Your task to perform on an android device: Empty the shopping cart on bestbuy. Search for "acer predator" on bestbuy, select the first entry, add it to the cart, then select checkout. Image 0: 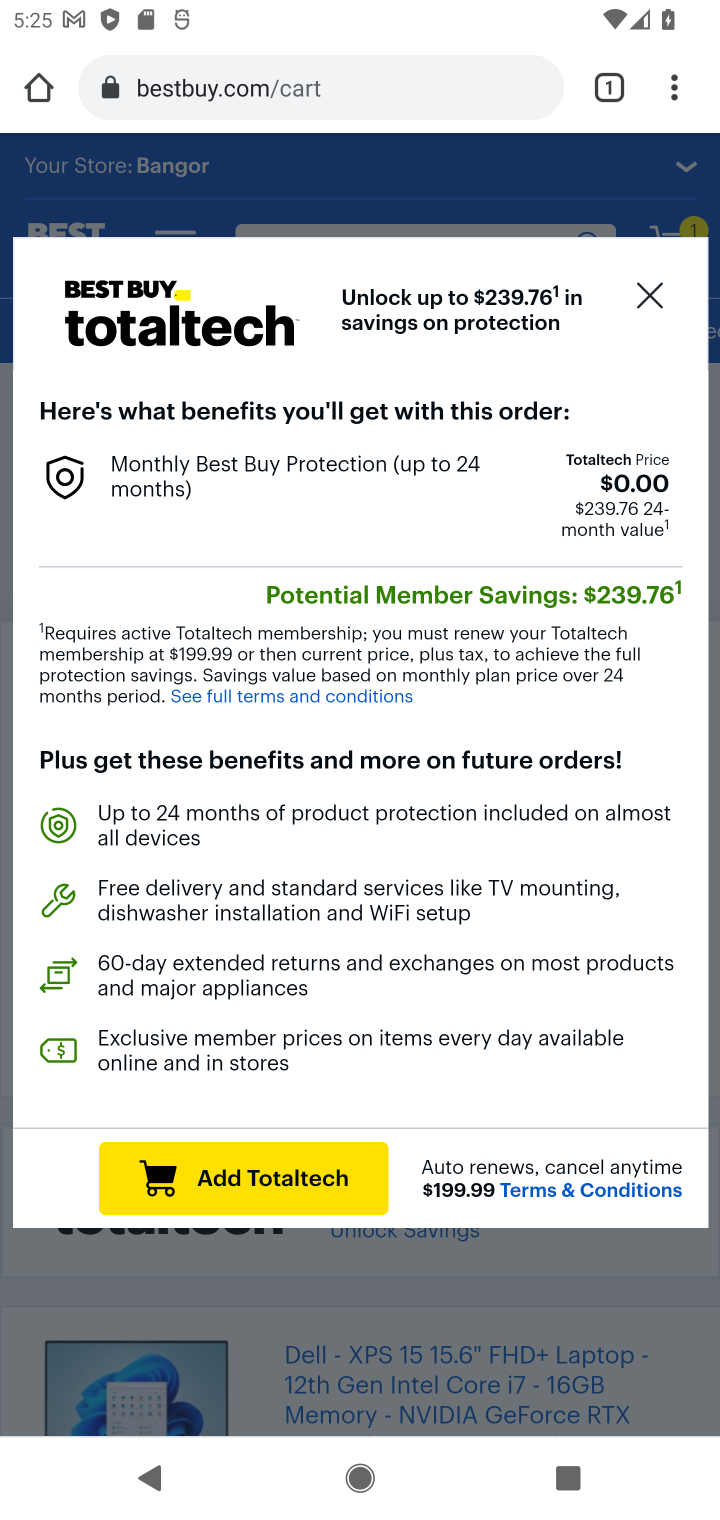
Step 0: drag from (367, 1118) to (560, 555)
Your task to perform on an android device: Empty the shopping cart on bestbuy. Search for "acer predator" on bestbuy, select the first entry, add it to the cart, then select checkout. Image 1: 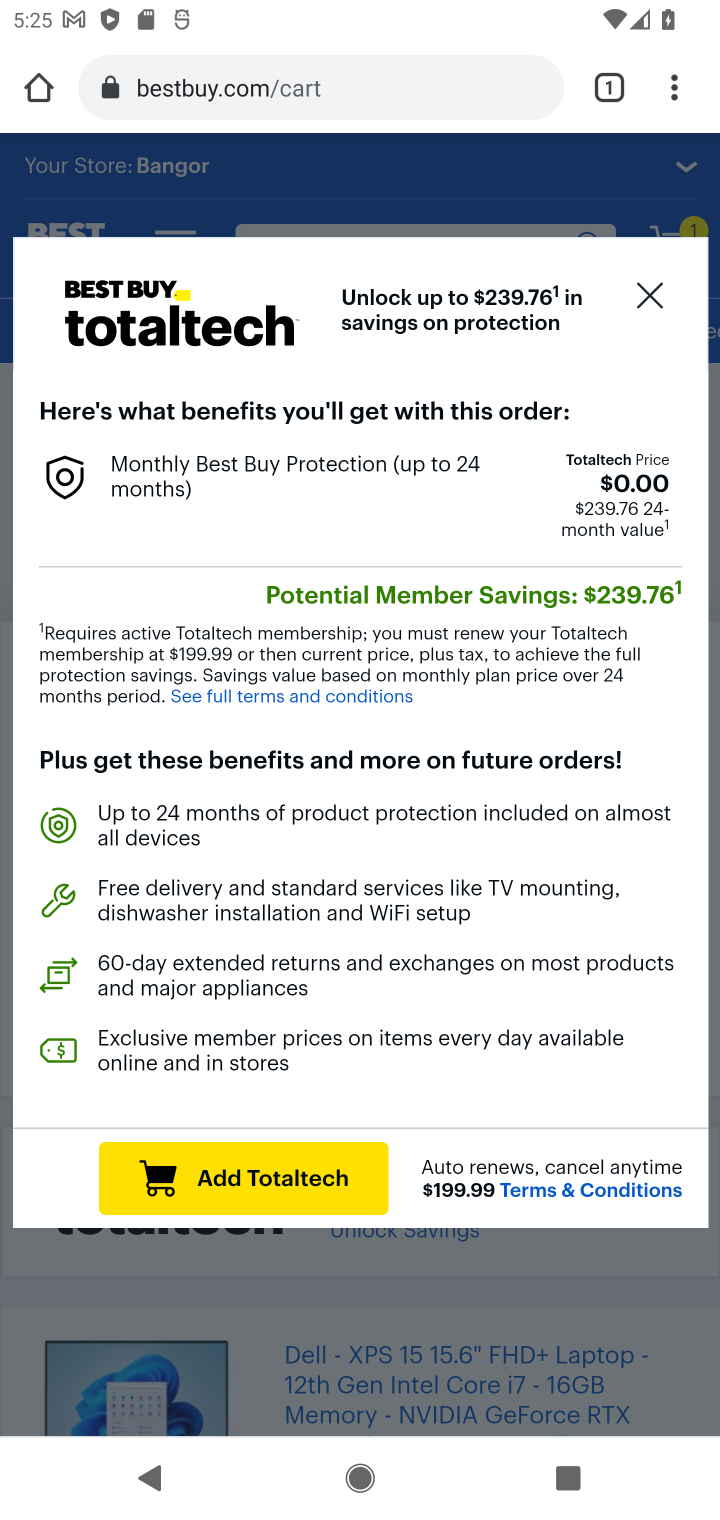
Step 1: press home button
Your task to perform on an android device: Empty the shopping cart on bestbuy. Search for "acer predator" on bestbuy, select the first entry, add it to the cart, then select checkout. Image 2: 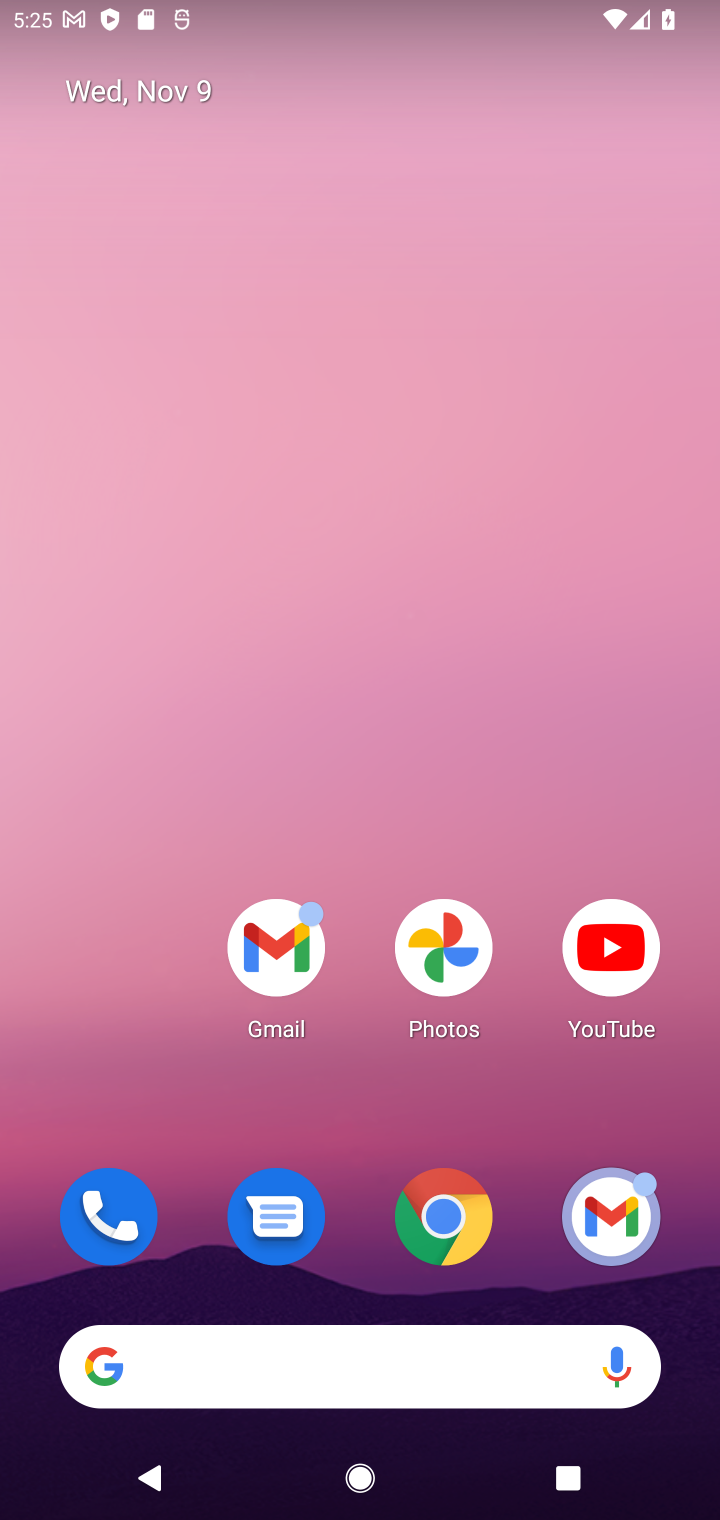
Step 2: drag from (372, 1134) to (344, 74)
Your task to perform on an android device: Empty the shopping cart on bestbuy. Search for "acer predator" on bestbuy, select the first entry, add it to the cart, then select checkout. Image 3: 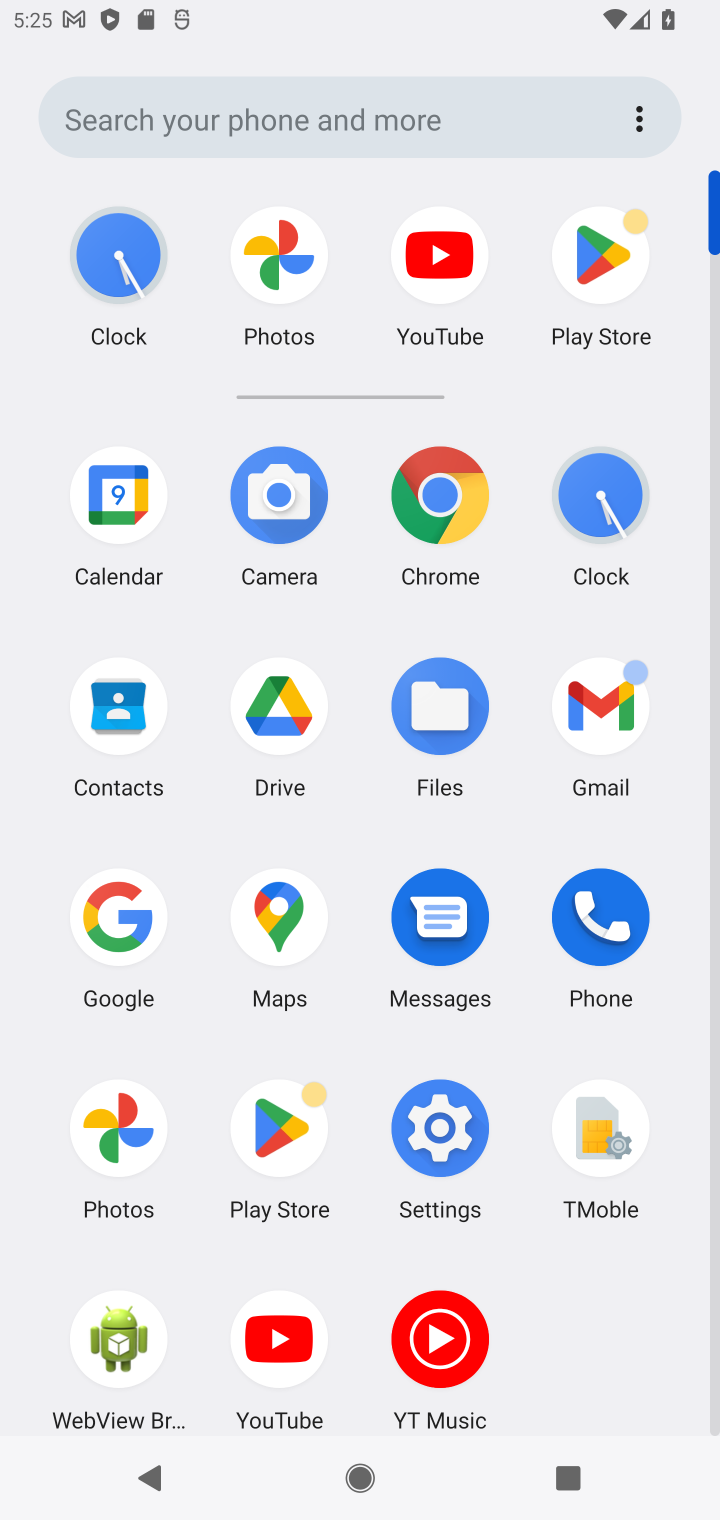
Step 3: click (446, 491)
Your task to perform on an android device: Empty the shopping cart on bestbuy. Search for "acer predator" on bestbuy, select the first entry, add it to the cart, then select checkout. Image 4: 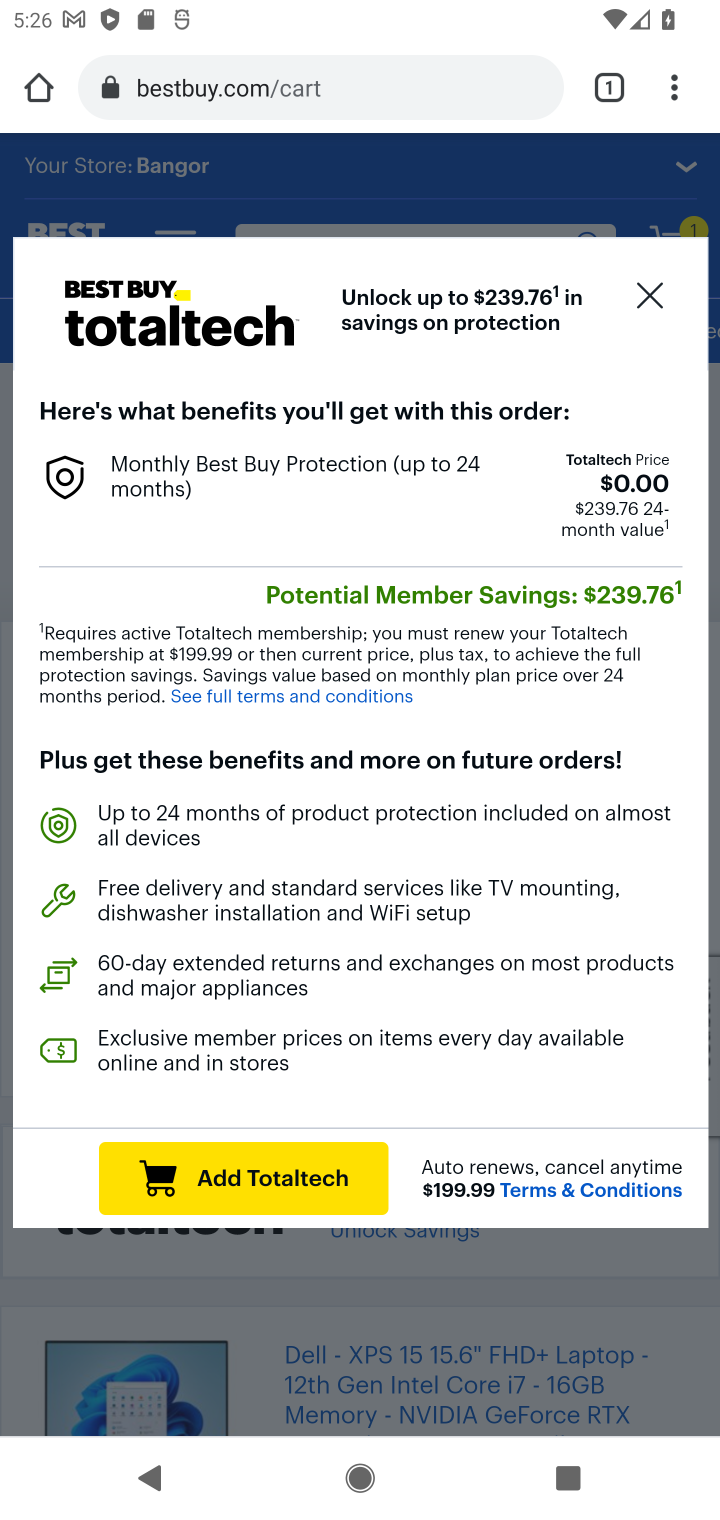
Step 4: click (347, 96)
Your task to perform on an android device: Empty the shopping cart on bestbuy. Search for "acer predator" on bestbuy, select the first entry, add it to the cart, then select checkout. Image 5: 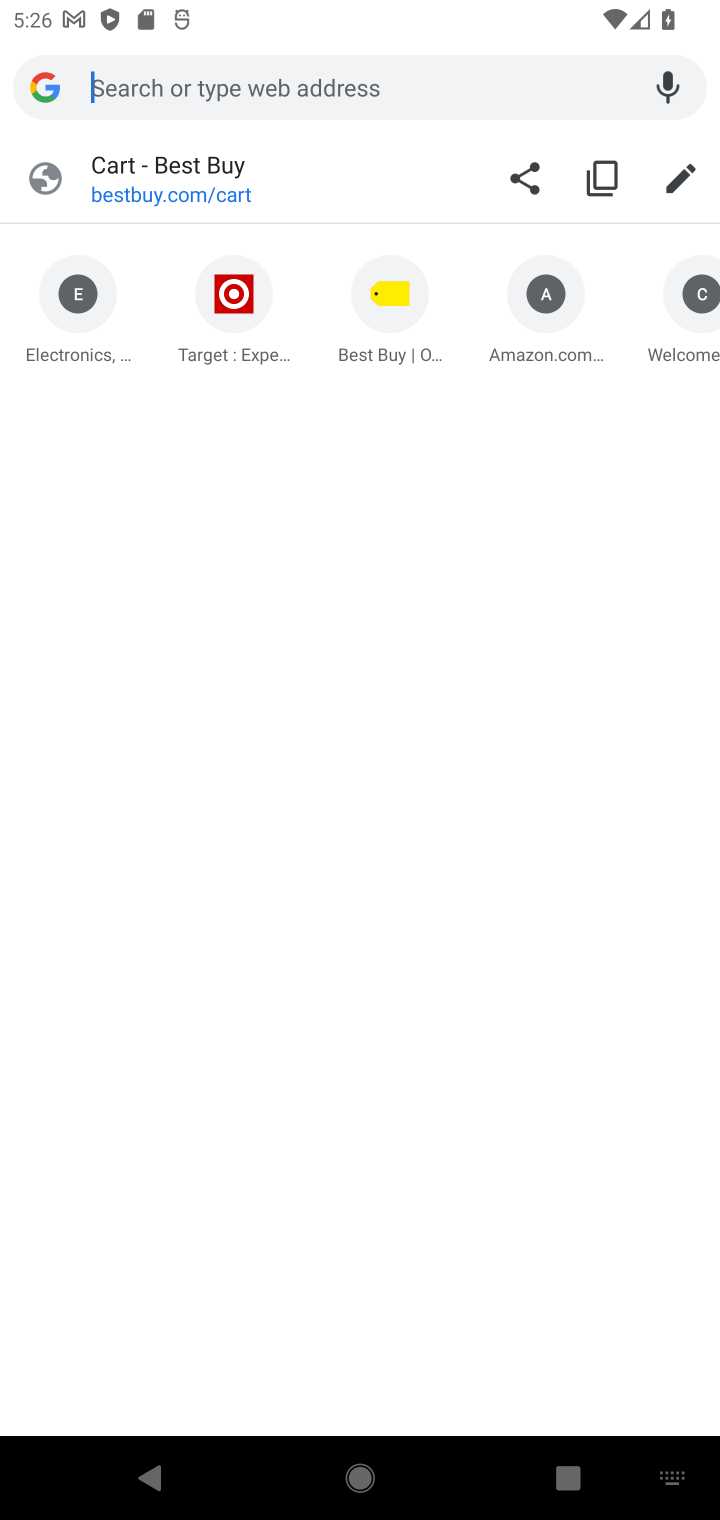
Step 5: type "bestbuy.com"
Your task to perform on an android device: Empty the shopping cart on bestbuy. Search for "acer predator" on bestbuy, select the first entry, add it to the cart, then select checkout. Image 6: 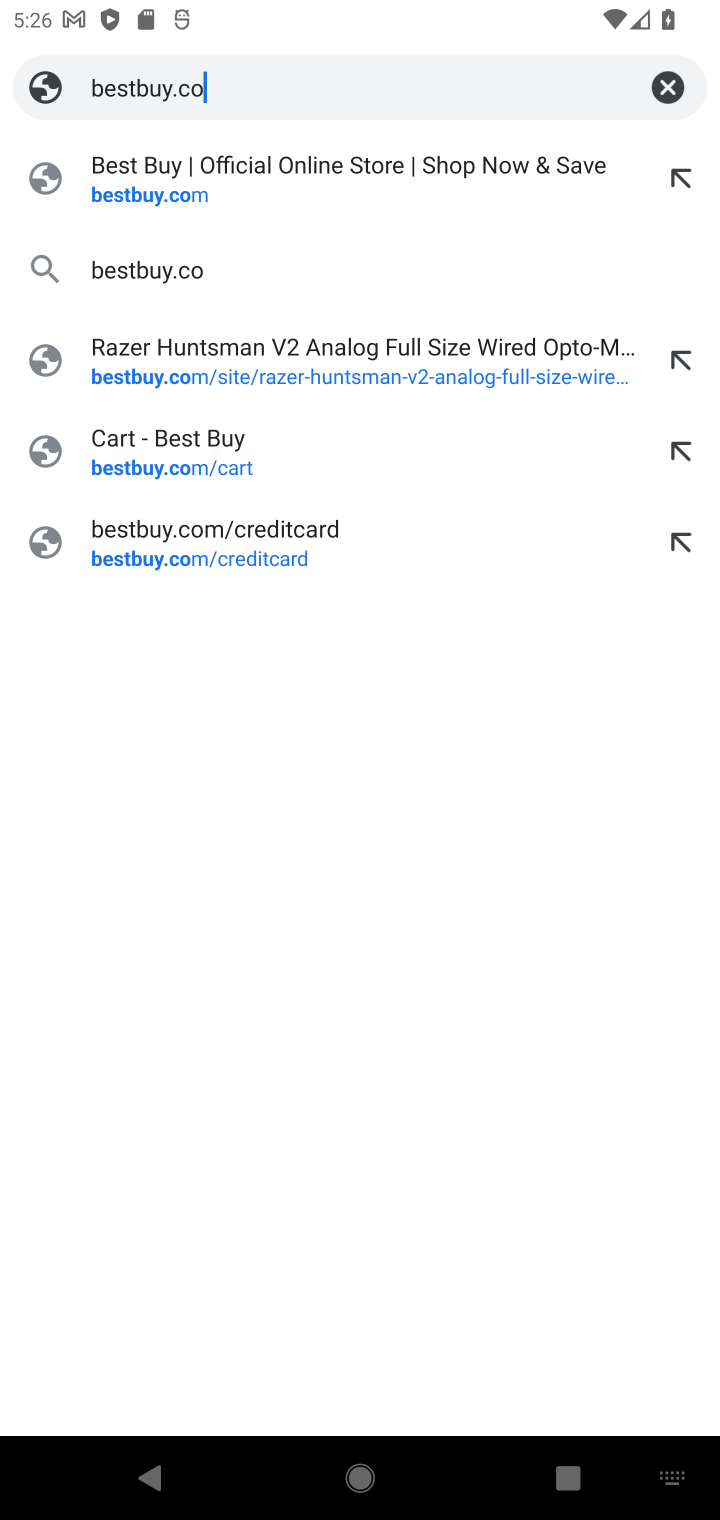
Step 6: press enter
Your task to perform on an android device: Empty the shopping cart on bestbuy. Search for "acer predator" on bestbuy, select the first entry, add it to the cart, then select checkout. Image 7: 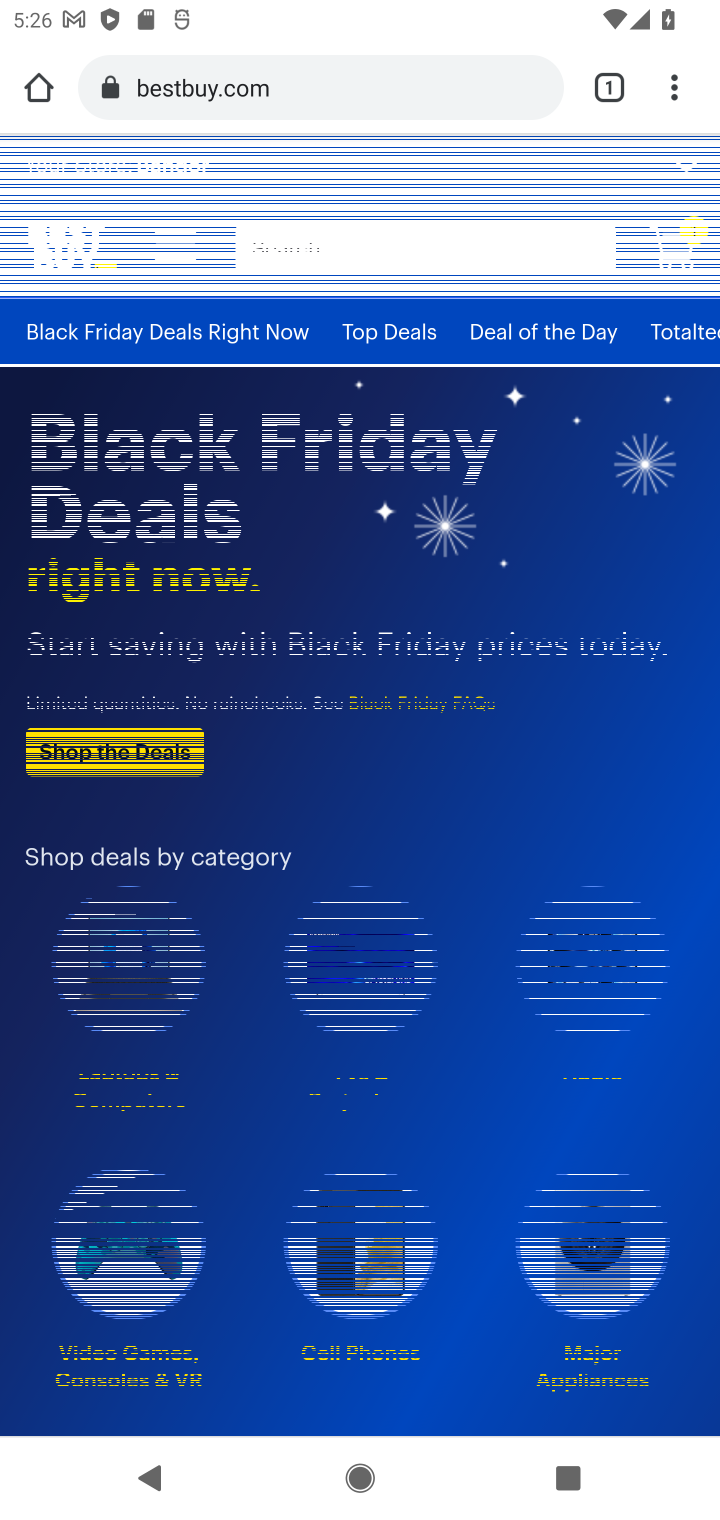
Step 7: click (683, 235)
Your task to perform on an android device: Empty the shopping cart on bestbuy. Search for "acer predator" on bestbuy, select the first entry, add it to the cart, then select checkout. Image 8: 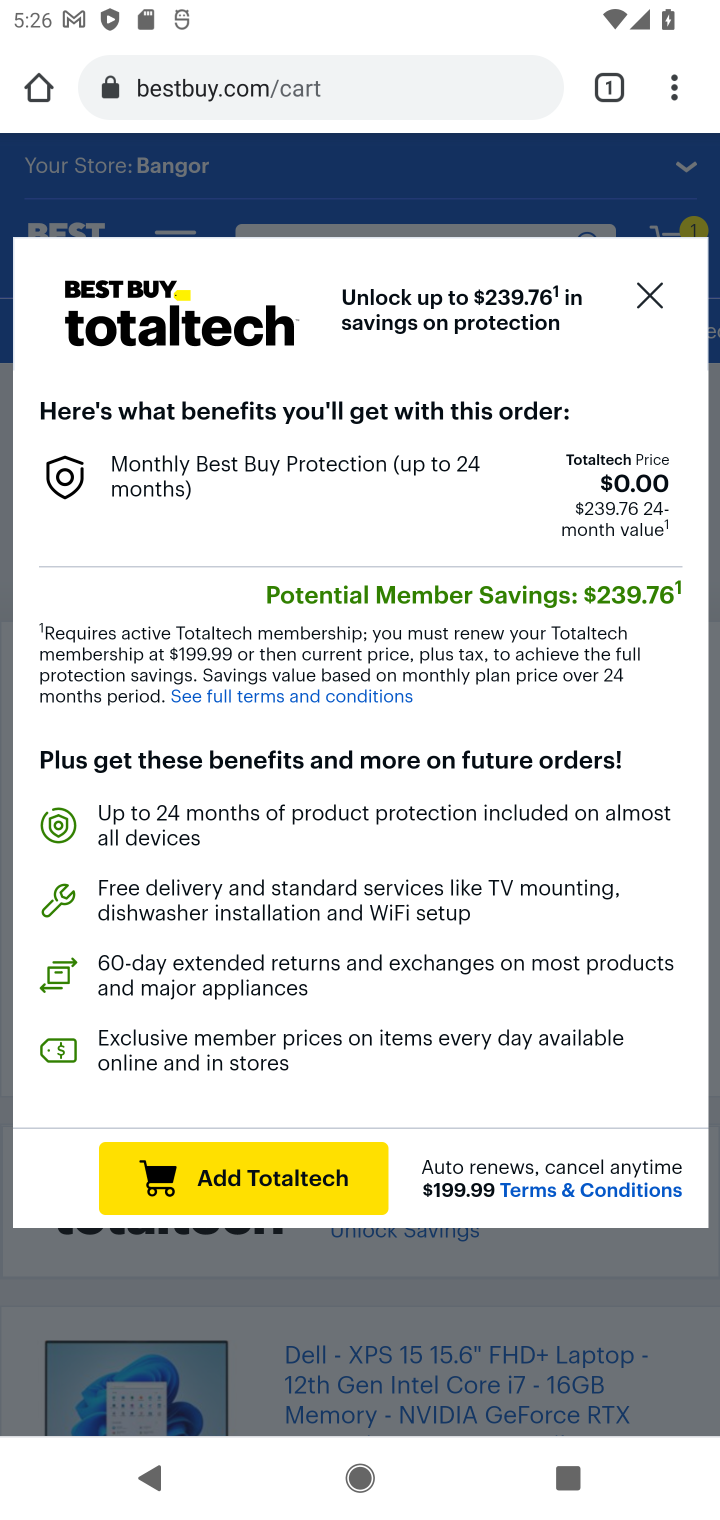
Step 8: click (642, 295)
Your task to perform on an android device: Empty the shopping cart on bestbuy. Search for "acer predator" on bestbuy, select the first entry, add it to the cart, then select checkout. Image 9: 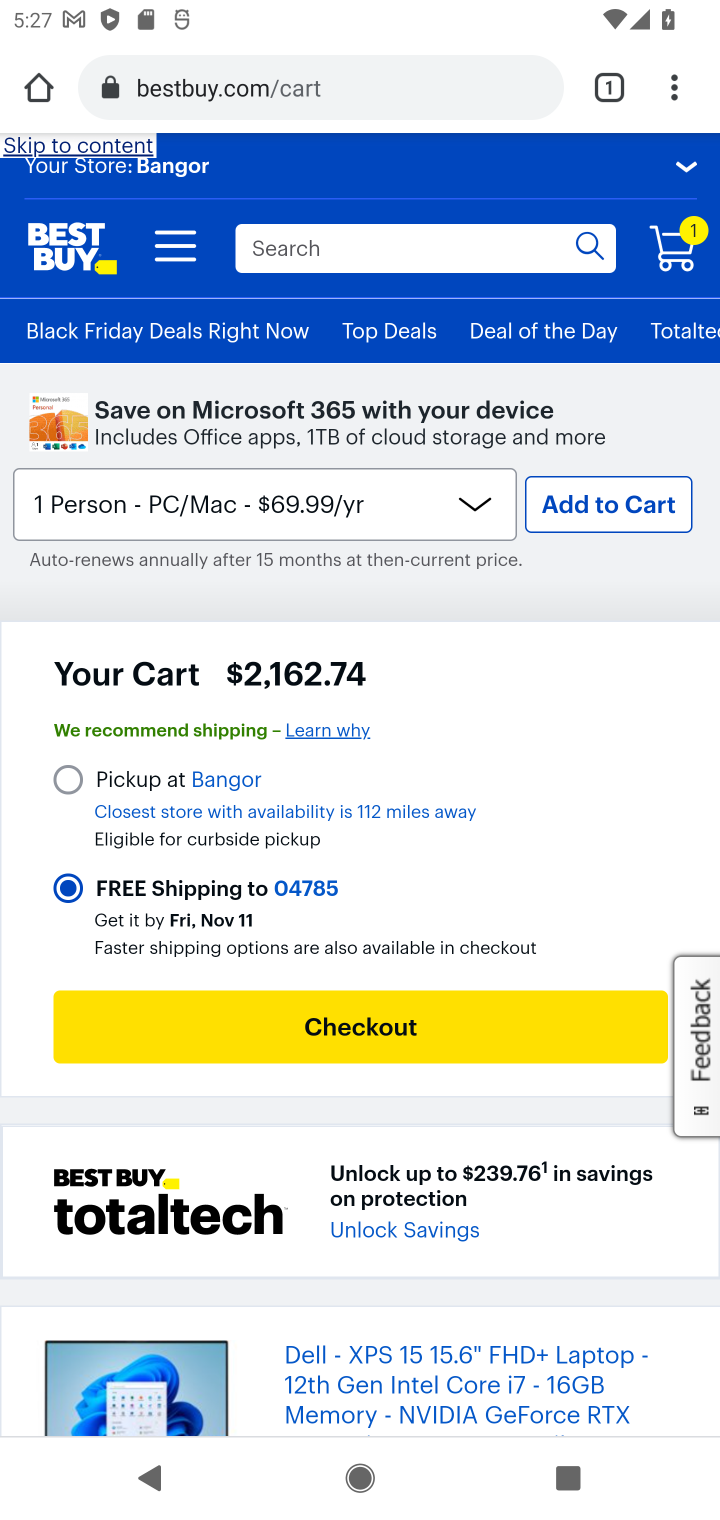
Step 9: drag from (422, 1247) to (528, 601)
Your task to perform on an android device: Empty the shopping cart on bestbuy. Search for "acer predator" on bestbuy, select the first entry, add it to the cart, then select checkout. Image 10: 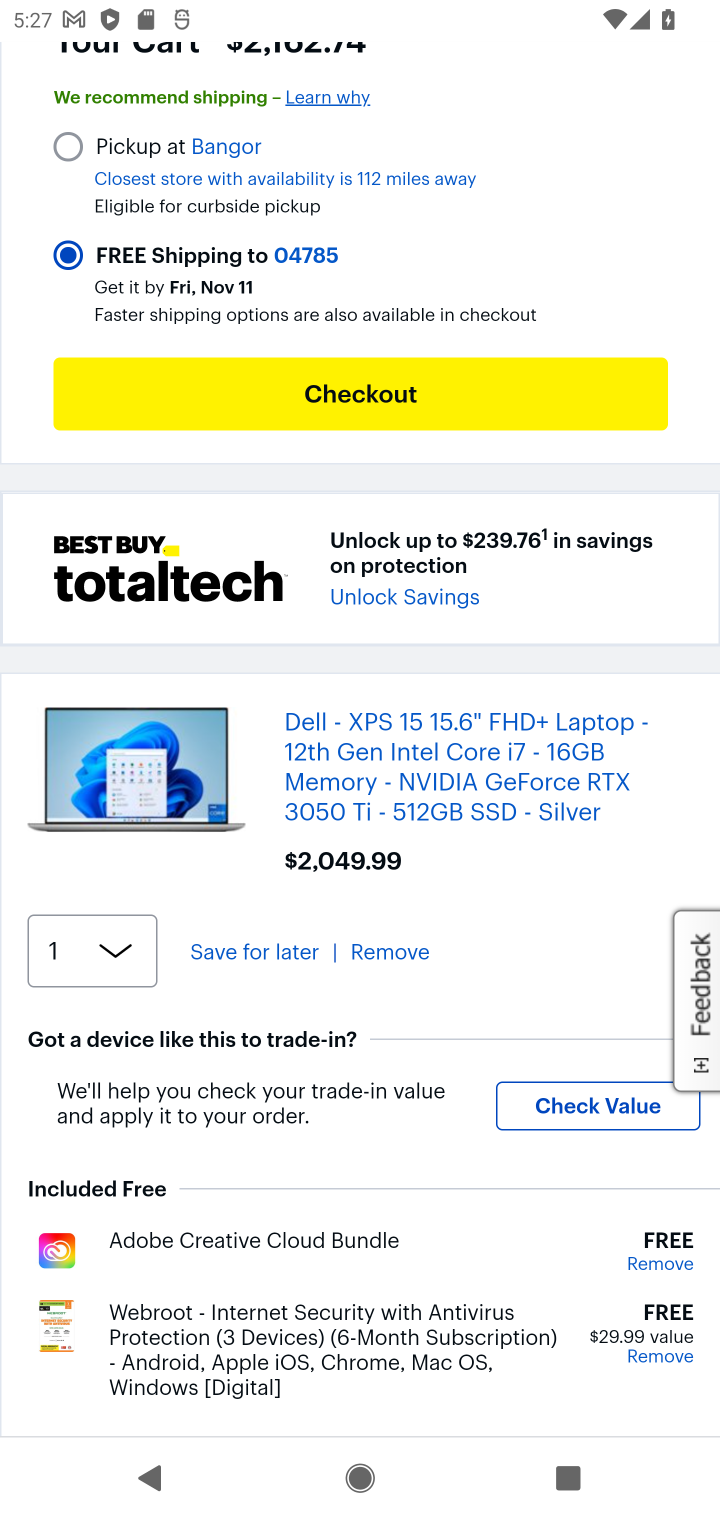
Step 10: drag from (431, 574) to (438, 1199)
Your task to perform on an android device: Empty the shopping cart on bestbuy. Search for "acer predator" on bestbuy, select the first entry, add it to the cart, then select checkout. Image 11: 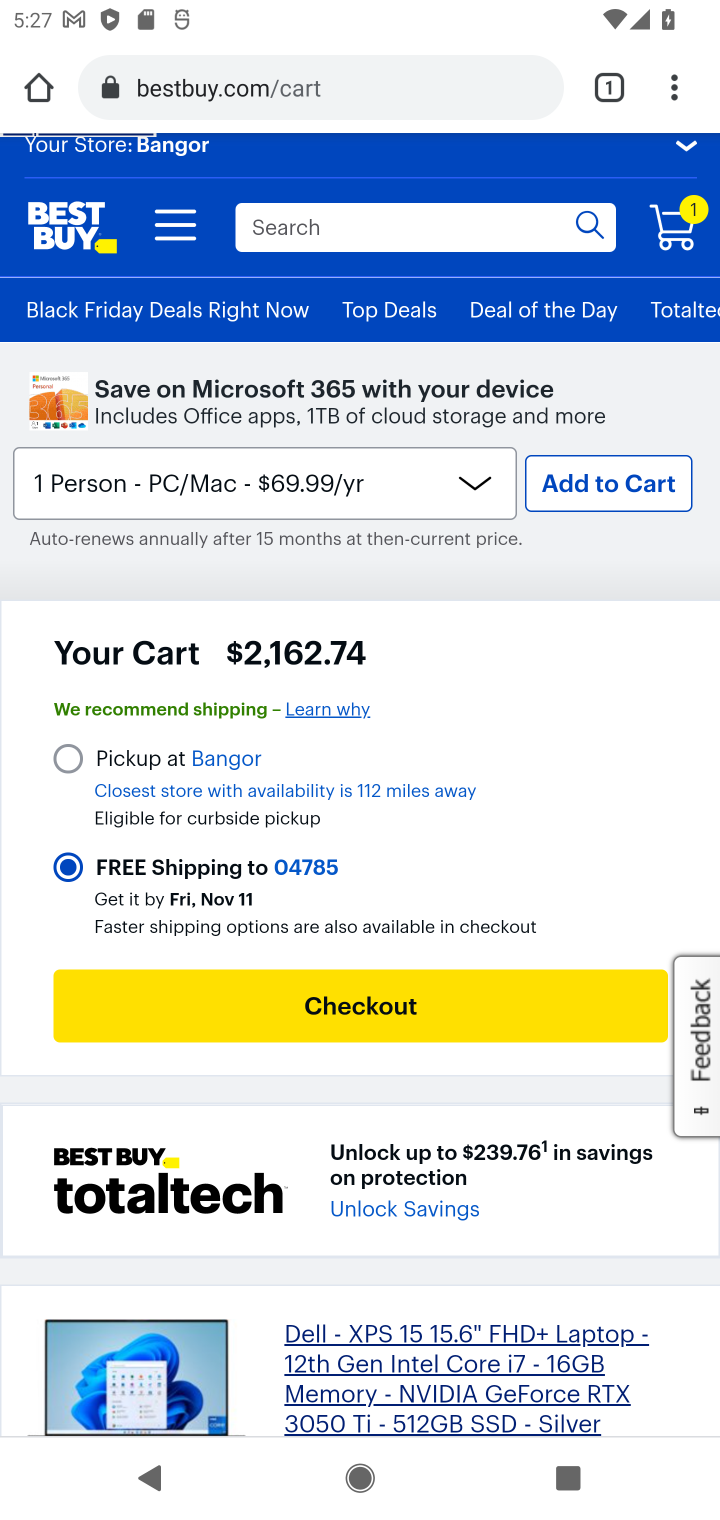
Step 11: click (656, 225)
Your task to perform on an android device: Empty the shopping cart on bestbuy. Search for "acer predator" on bestbuy, select the first entry, add it to the cart, then select checkout. Image 12: 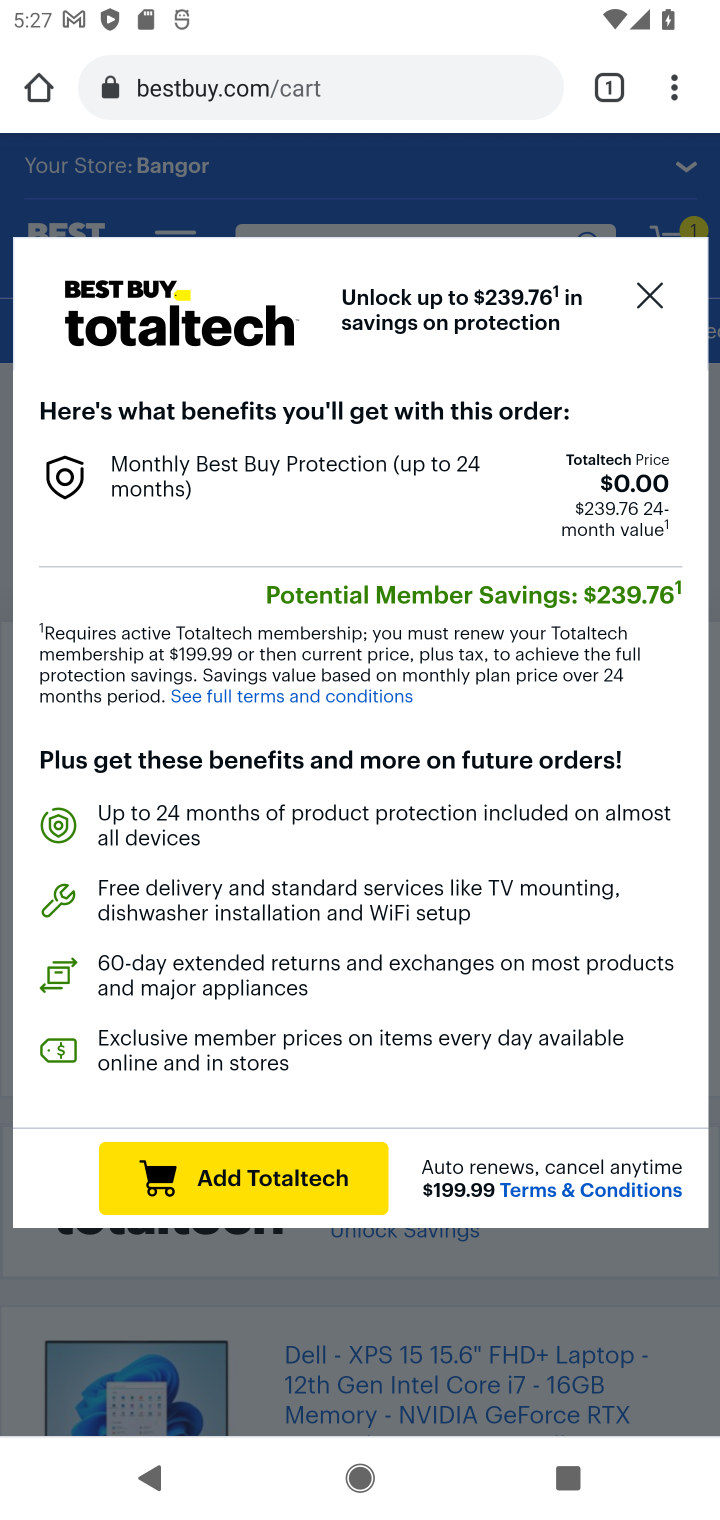
Step 12: click (653, 298)
Your task to perform on an android device: Empty the shopping cart on bestbuy. Search for "acer predator" on bestbuy, select the first entry, add it to the cart, then select checkout. Image 13: 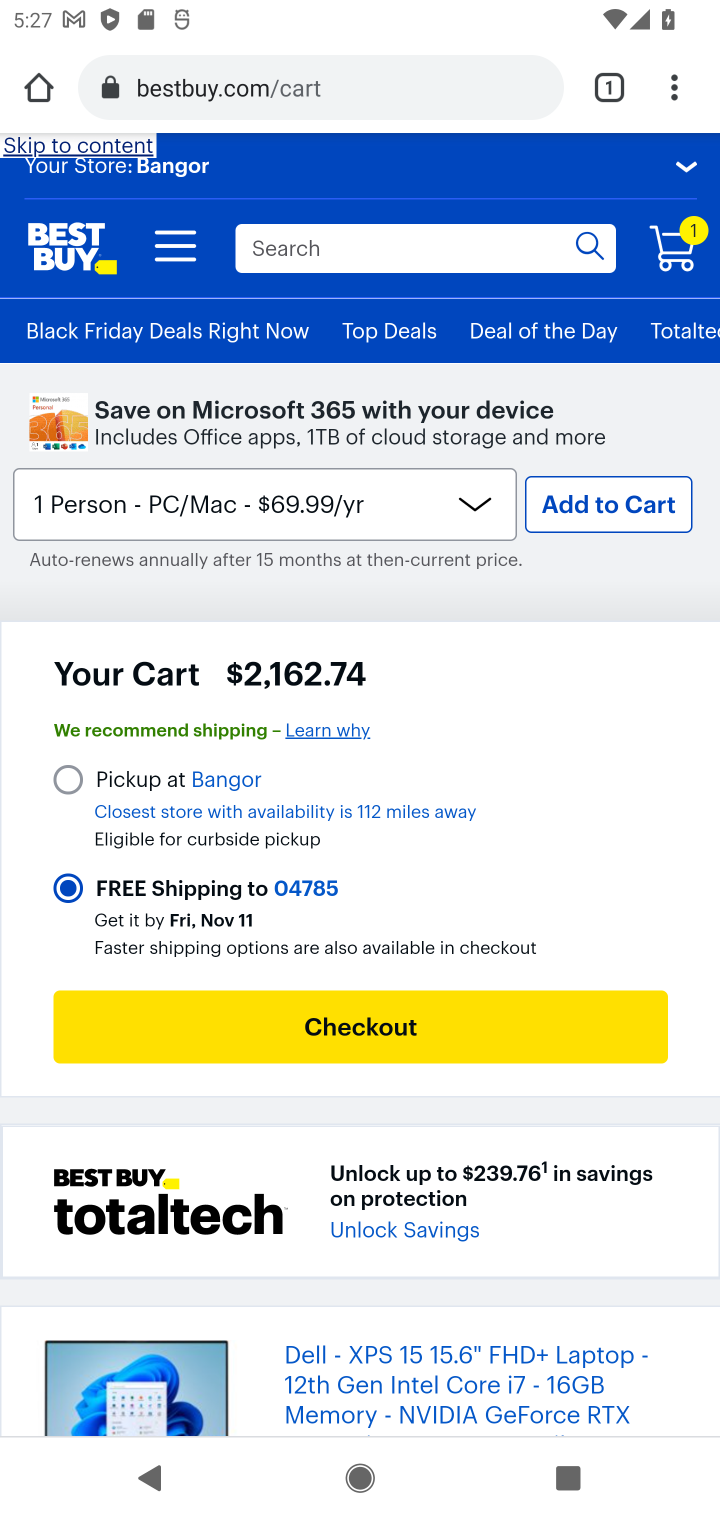
Step 13: drag from (505, 1240) to (577, 452)
Your task to perform on an android device: Empty the shopping cart on bestbuy. Search for "acer predator" on bestbuy, select the first entry, add it to the cart, then select checkout. Image 14: 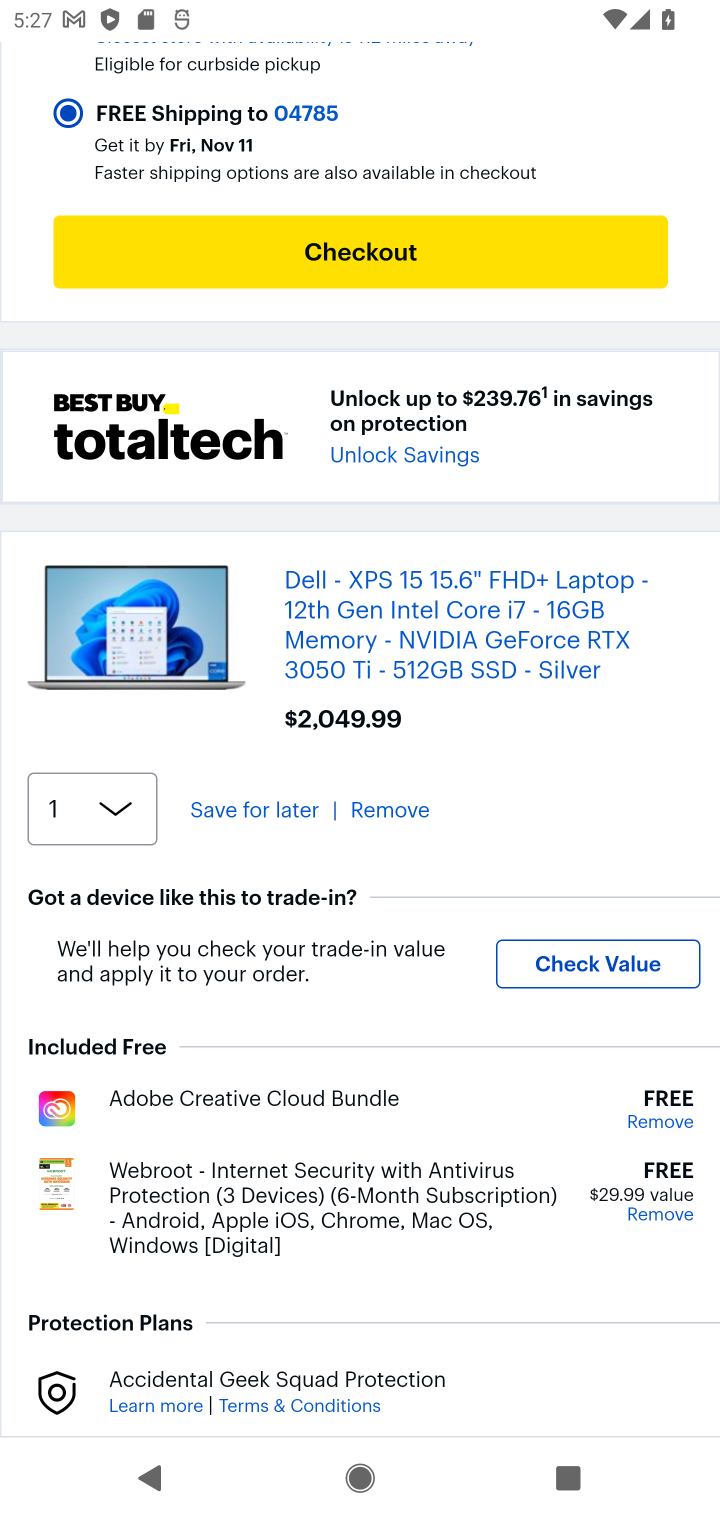
Step 14: click (363, 804)
Your task to perform on an android device: Empty the shopping cart on bestbuy. Search for "acer predator" on bestbuy, select the first entry, add it to the cart, then select checkout. Image 15: 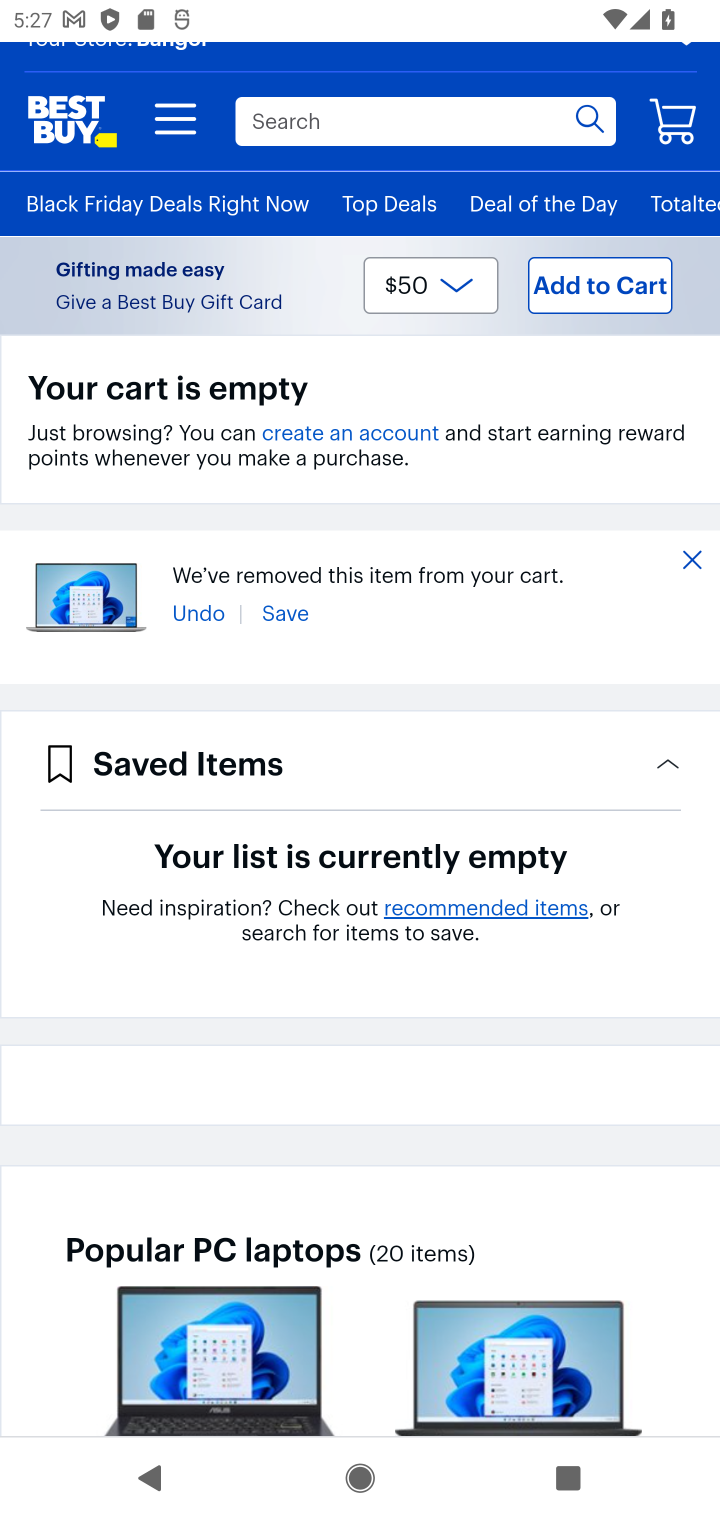
Step 15: click (493, 126)
Your task to perform on an android device: Empty the shopping cart on bestbuy. Search for "acer predator" on bestbuy, select the first entry, add it to the cart, then select checkout. Image 16: 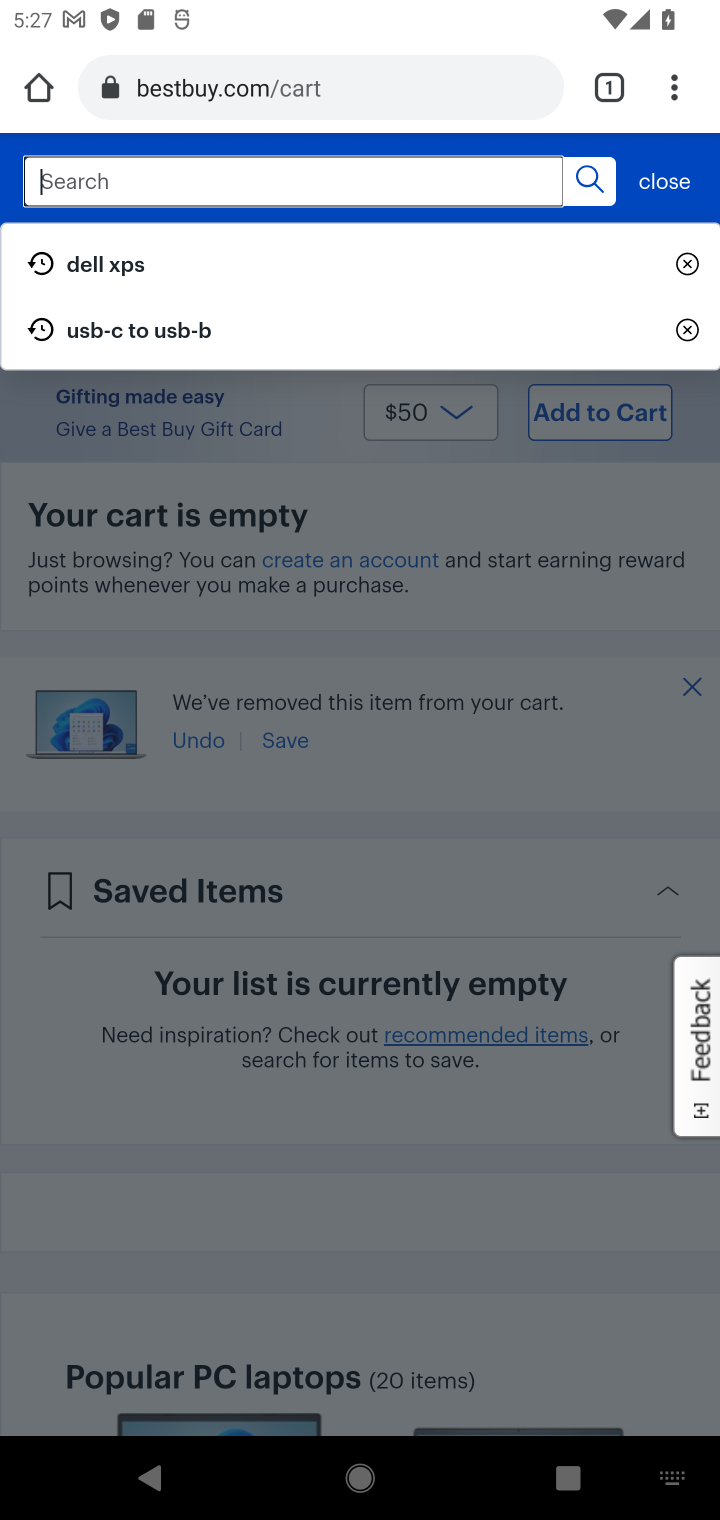
Step 16: type "acer predator"
Your task to perform on an android device: Empty the shopping cart on bestbuy. Search for "acer predator" on bestbuy, select the first entry, add it to the cart, then select checkout. Image 17: 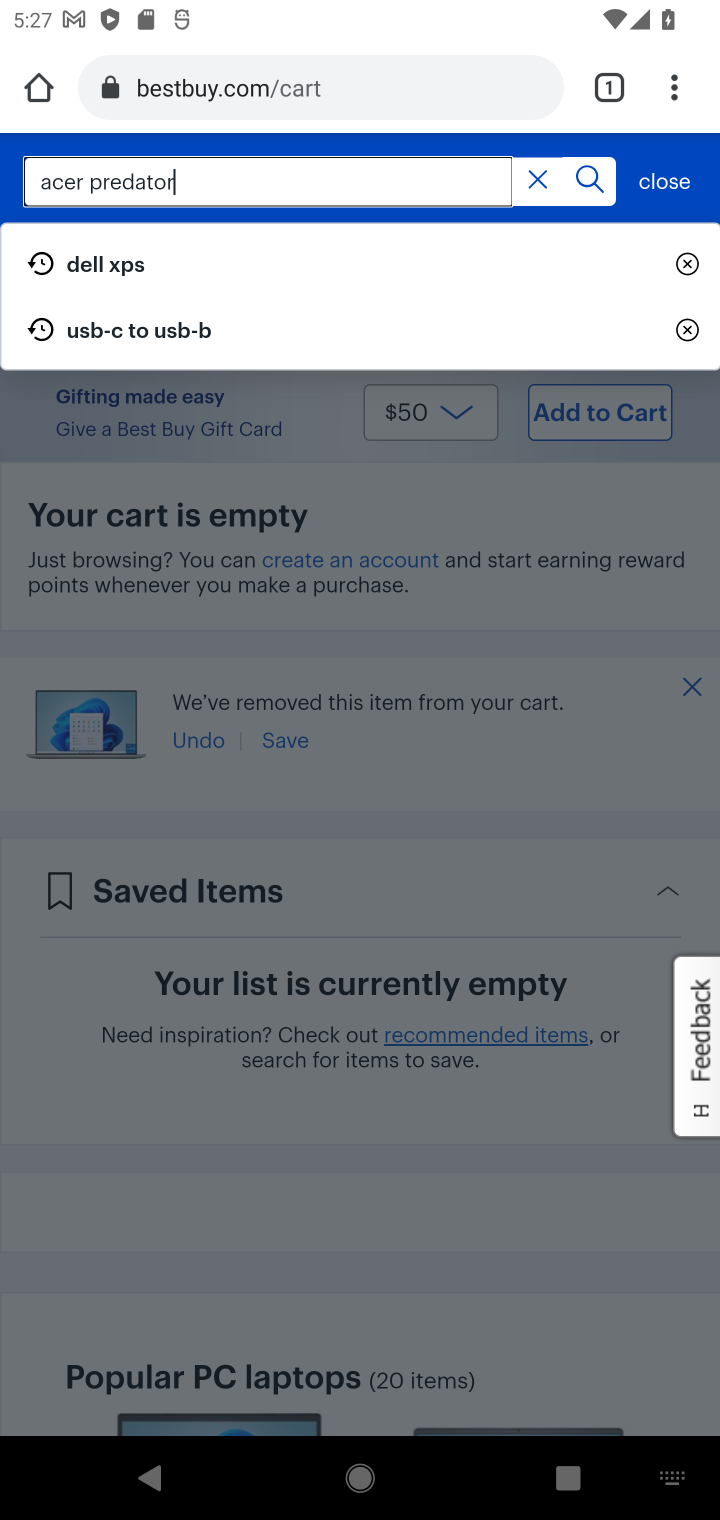
Step 17: press enter
Your task to perform on an android device: Empty the shopping cart on bestbuy. Search for "acer predator" on bestbuy, select the first entry, add it to the cart, then select checkout. Image 18: 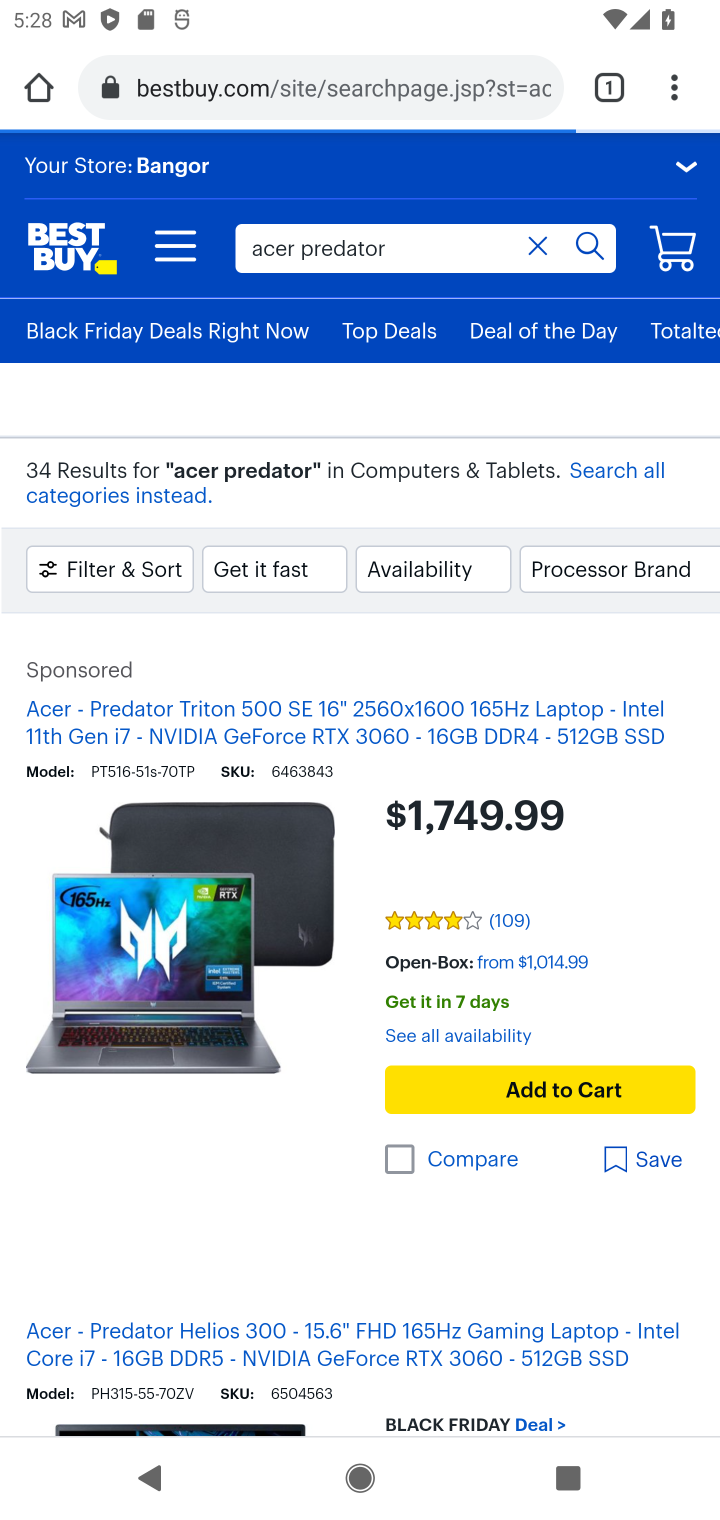
Step 18: drag from (279, 1134) to (344, 712)
Your task to perform on an android device: Empty the shopping cart on bestbuy. Search for "acer predator" on bestbuy, select the first entry, add it to the cart, then select checkout. Image 19: 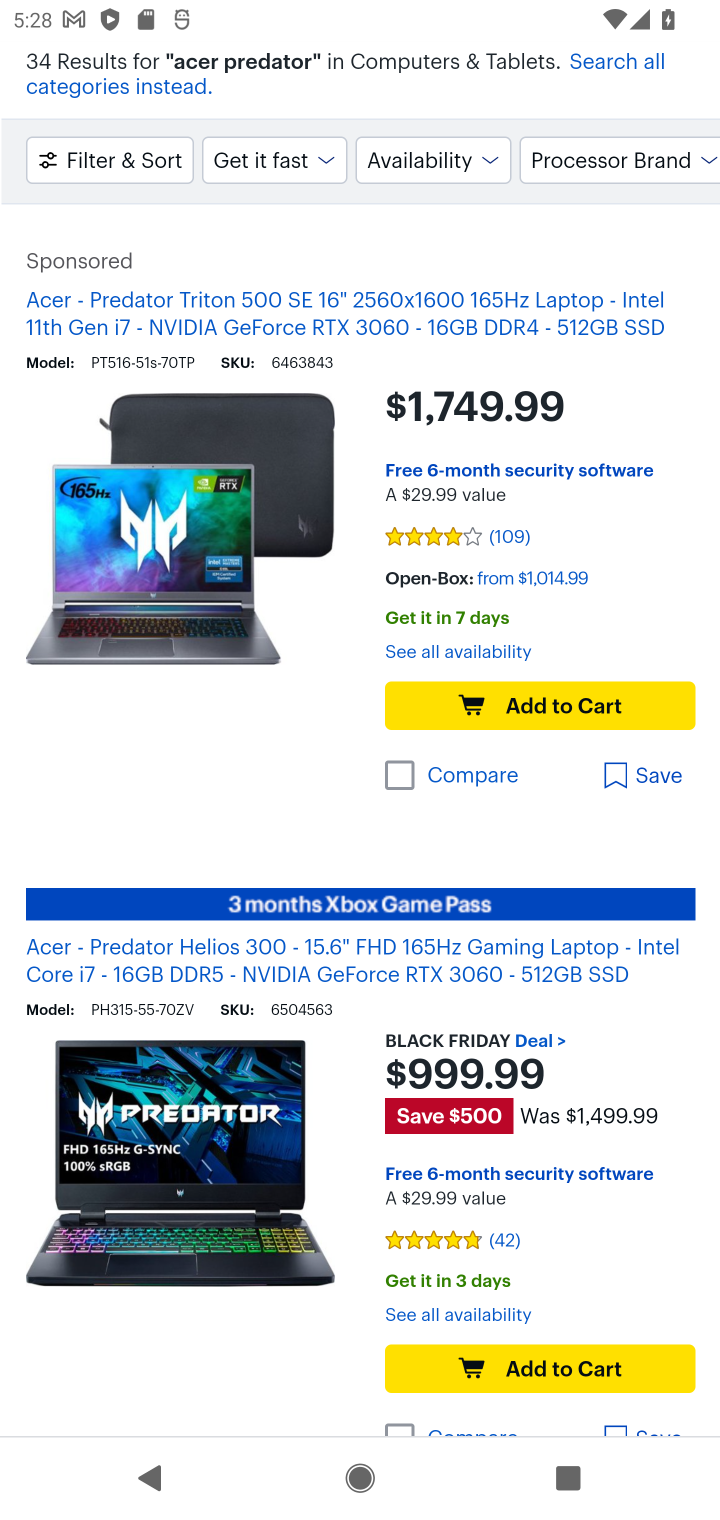
Step 19: click (577, 1357)
Your task to perform on an android device: Empty the shopping cart on bestbuy. Search for "acer predator" on bestbuy, select the first entry, add it to the cart, then select checkout. Image 20: 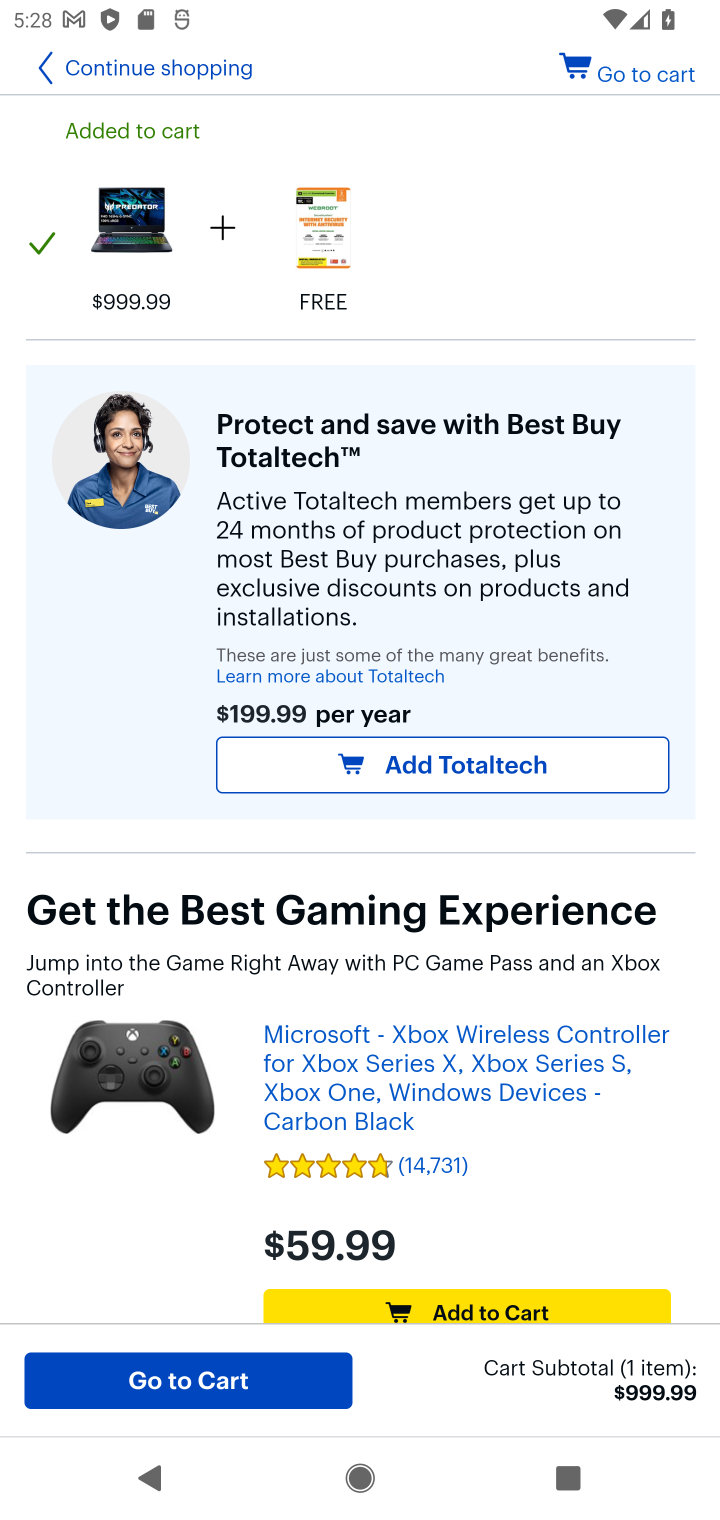
Step 20: click (237, 1352)
Your task to perform on an android device: Empty the shopping cart on bestbuy. Search for "acer predator" on bestbuy, select the first entry, add it to the cart, then select checkout. Image 21: 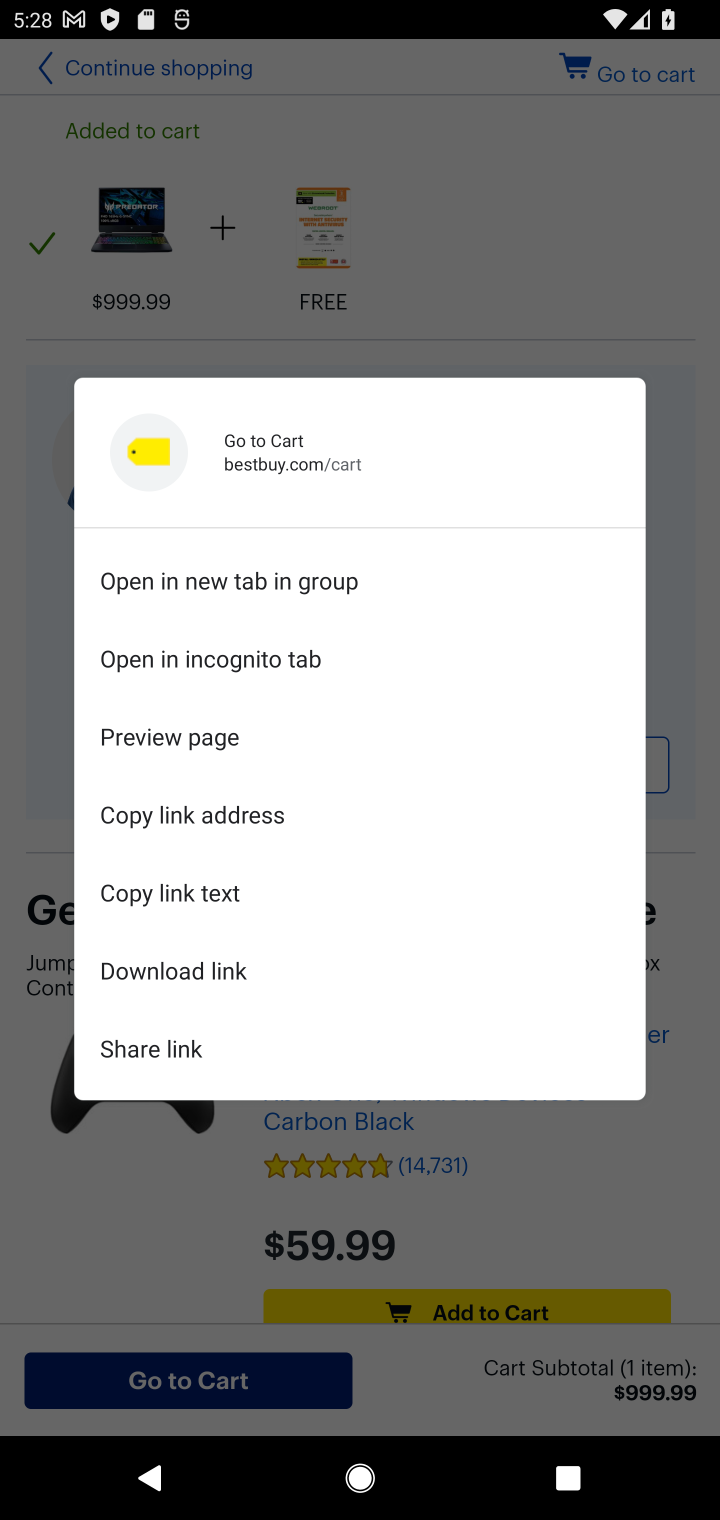
Step 21: click (231, 1351)
Your task to perform on an android device: Empty the shopping cart on bestbuy. Search for "acer predator" on bestbuy, select the first entry, add it to the cart, then select checkout. Image 22: 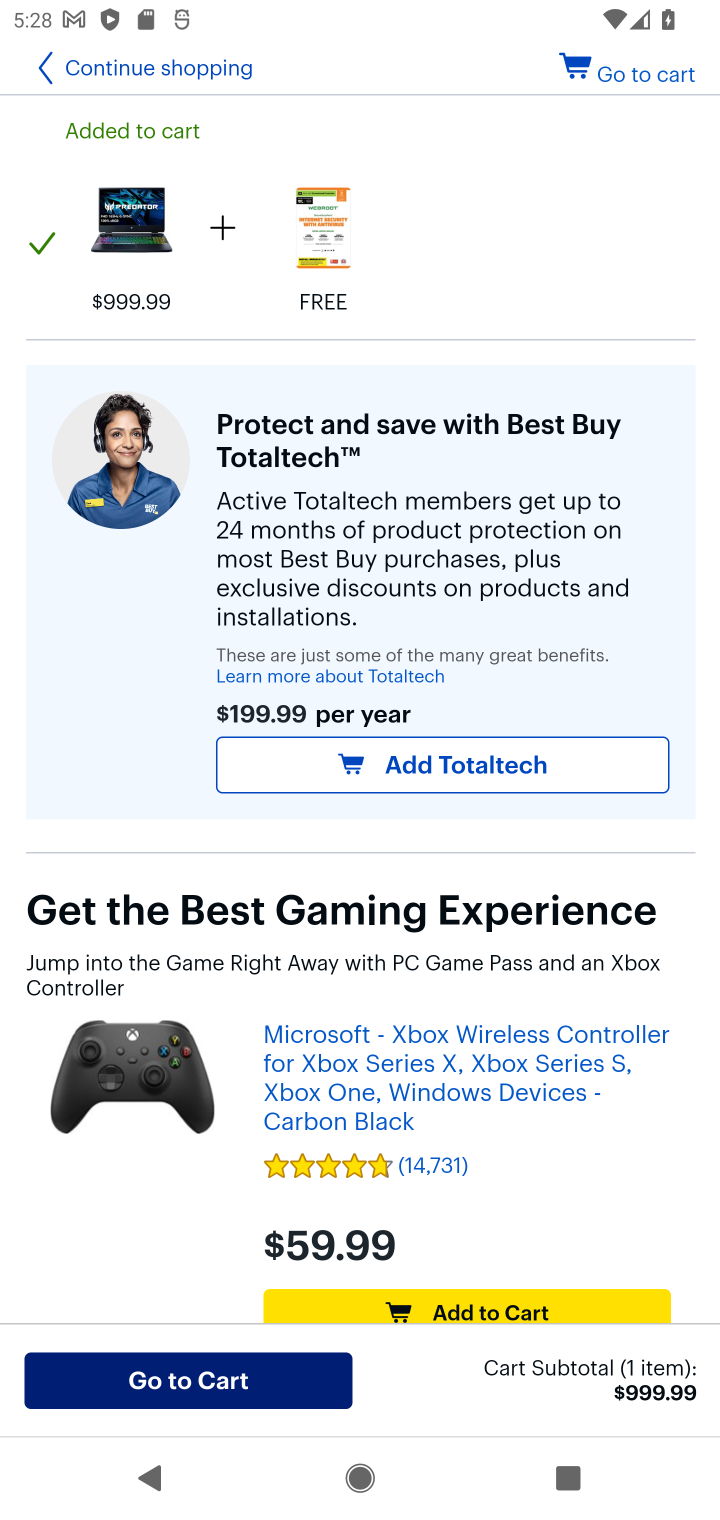
Step 22: click (231, 1382)
Your task to perform on an android device: Empty the shopping cart on bestbuy. Search for "acer predator" on bestbuy, select the first entry, add it to the cart, then select checkout. Image 23: 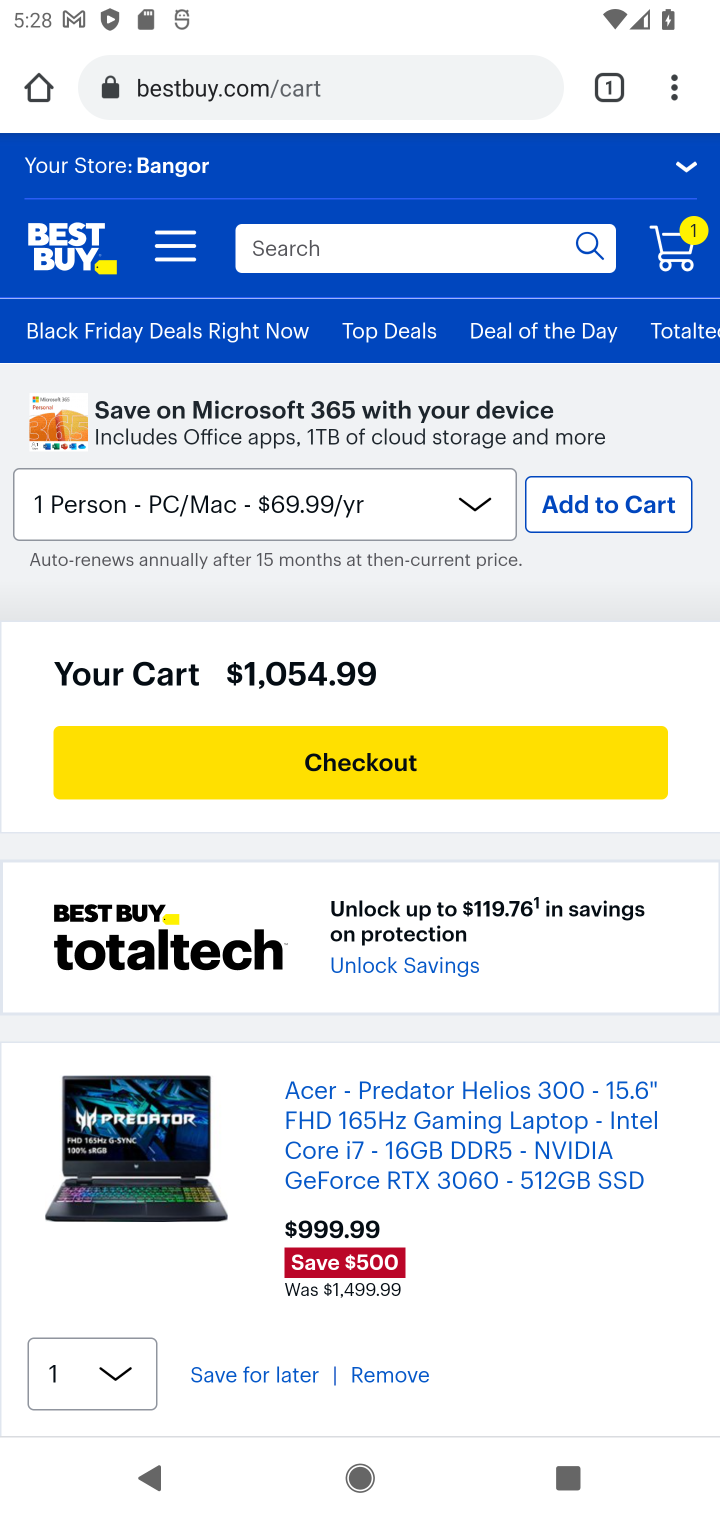
Step 23: click (344, 754)
Your task to perform on an android device: Empty the shopping cart on bestbuy. Search for "acer predator" on bestbuy, select the first entry, add it to the cart, then select checkout. Image 24: 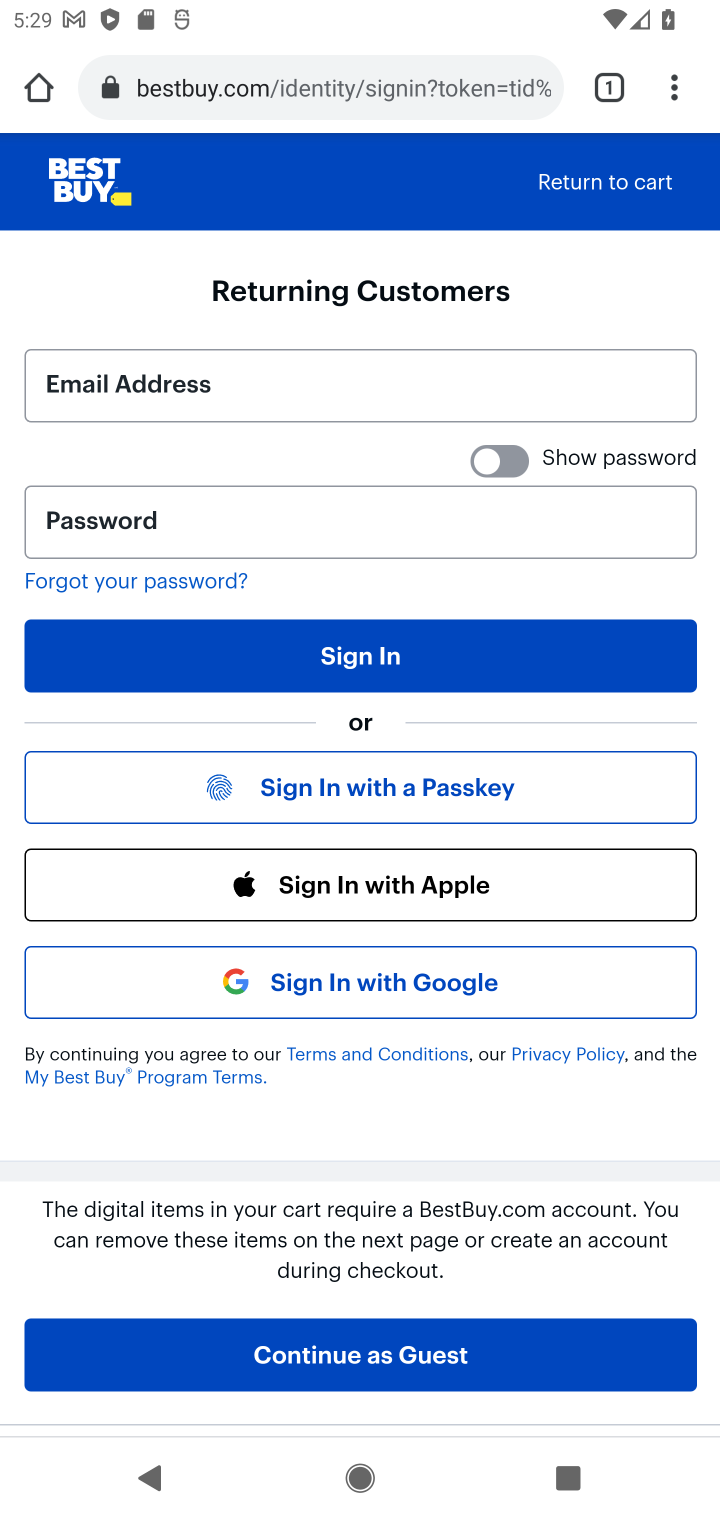
Step 24: task complete